Your task to perform on an android device: make emails show in primary in the gmail app Image 0: 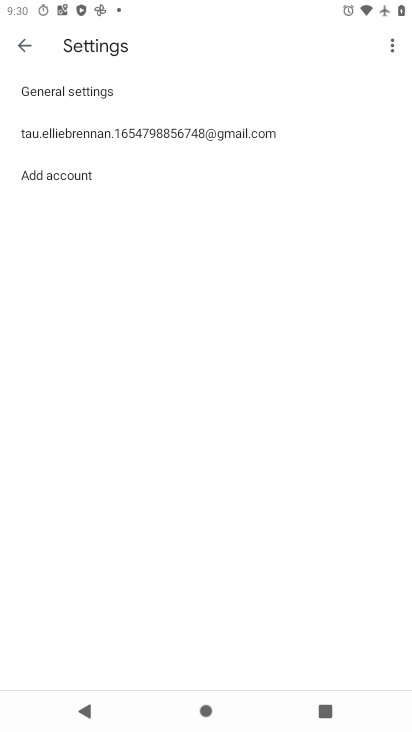
Step 0: press home button
Your task to perform on an android device: make emails show in primary in the gmail app Image 1: 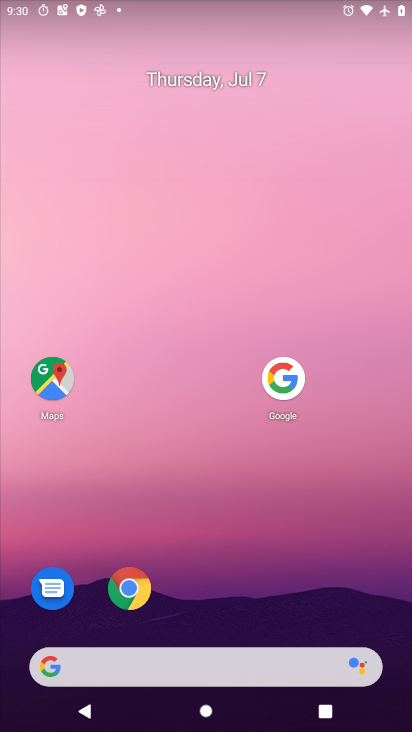
Step 1: drag from (259, 624) to (317, 15)
Your task to perform on an android device: make emails show in primary in the gmail app Image 2: 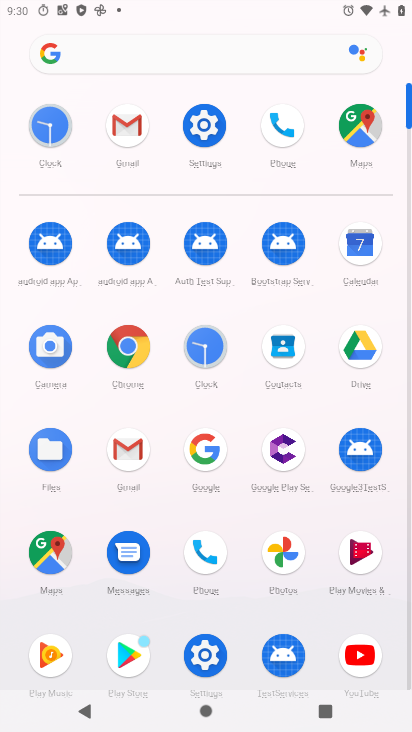
Step 2: click (126, 133)
Your task to perform on an android device: make emails show in primary in the gmail app Image 3: 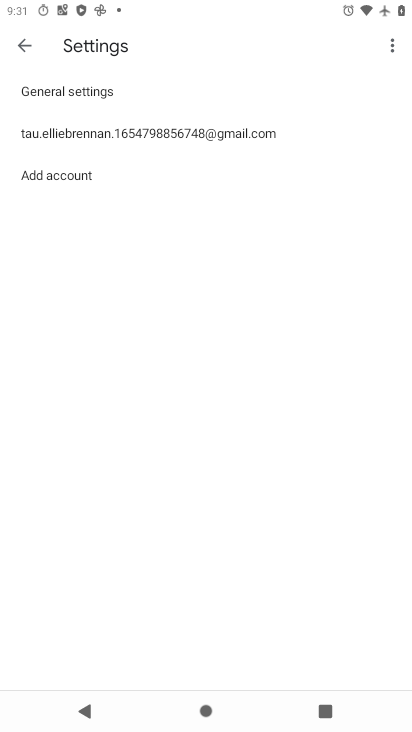
Step 3: click (126, 133)
Your task to perform on an android device: make emails show in primary in the gmail app Image 4: 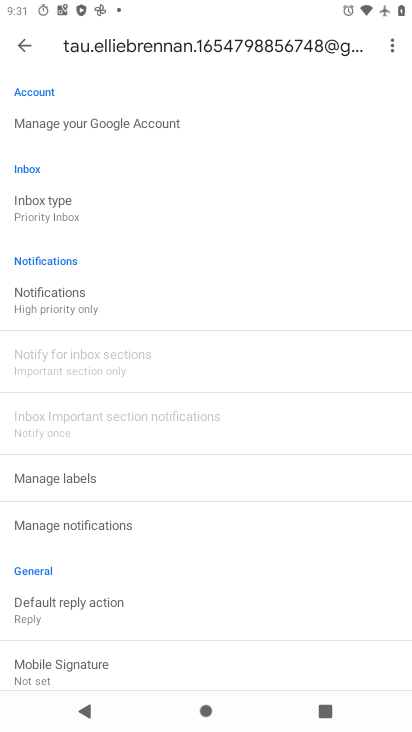
Step 4: task complete